Your task to perform on an android device: Do I have any events tomorrow? Image 0: 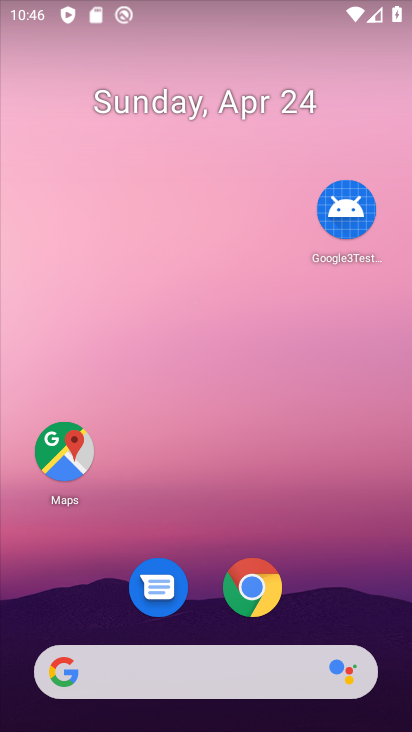
Step 0: drag from (366, 561) to (378, 88)
Your task to perform on an android device: Do I have any events tomorrow? Image 1: 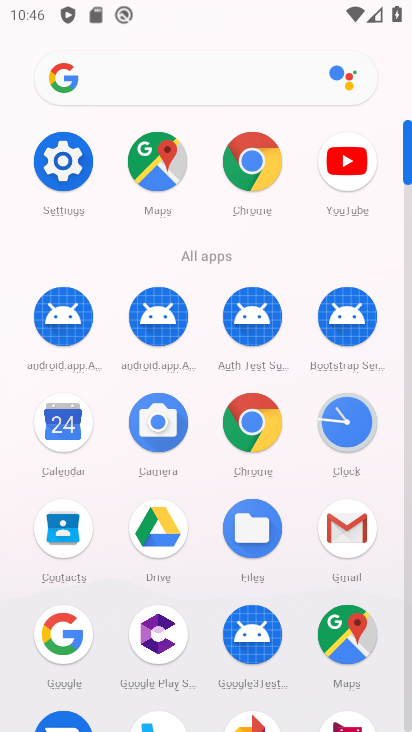
Step 1: drag from (377, 454) to (382, 173)
Your task to perform on an android device: Do I have any events tomorrow? Image 2: 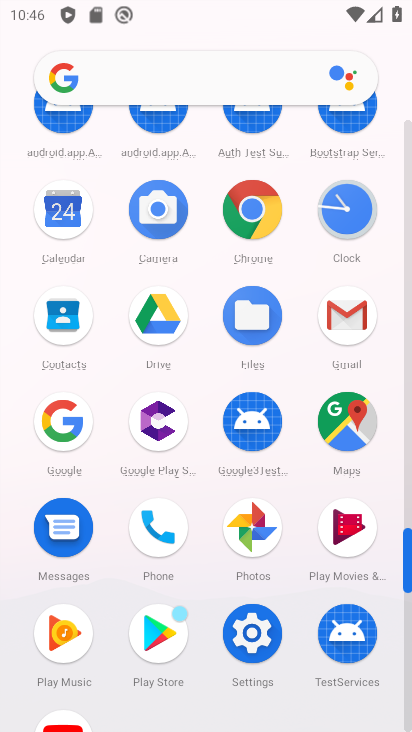
Step 2: click (62, 222)
Your task to perform on an android device: Do I have any events tomorrow? Image 3: 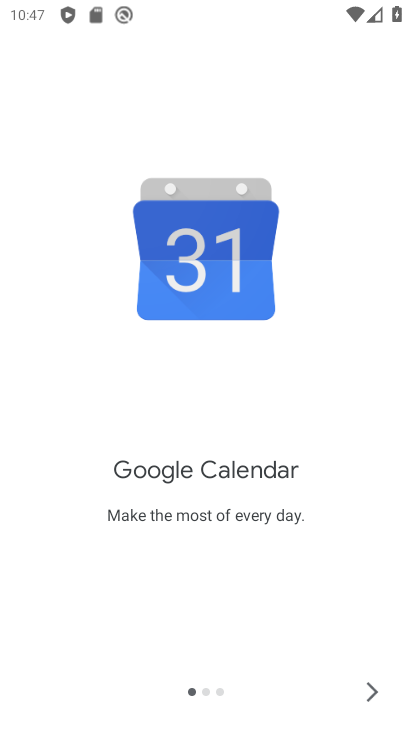
Step 3: click (372, 696)
Your task to perform on an android device: Do I have any events tomorrow? Image 4: 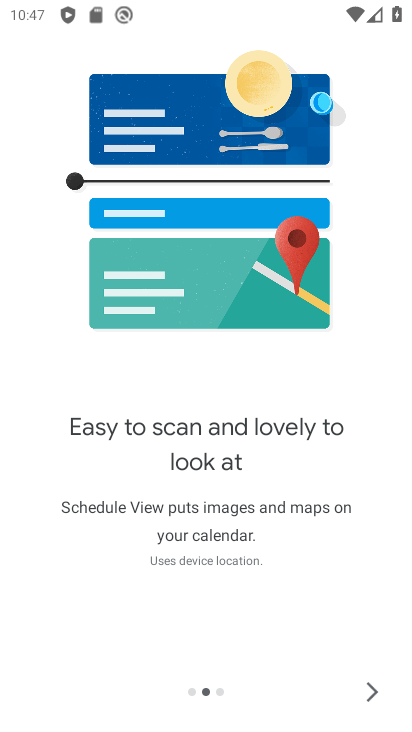
Step 4: click (372, 695)
Your task to perform on an android device: Do I have any events tomorrow? Image 5: 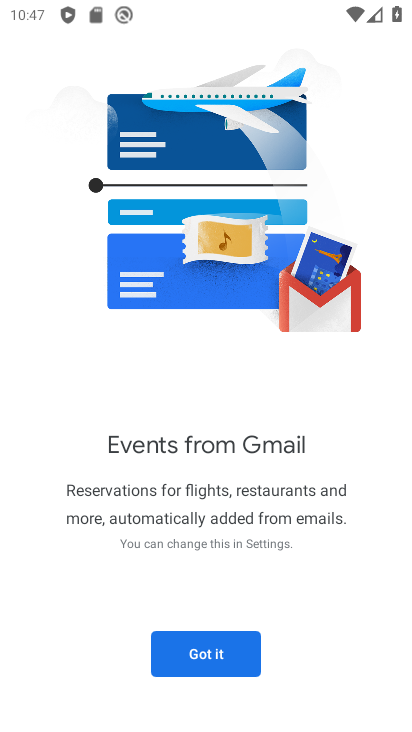
Step 5: click (236, 653)
Your task to perform on an android device: Do I have any events tomorrow? Image 6: 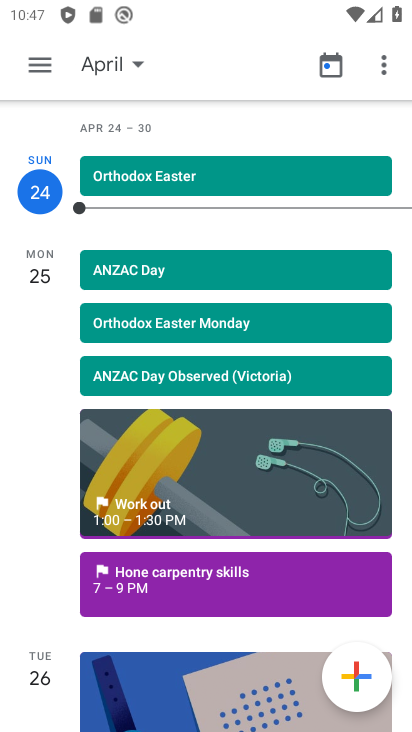
Step 6: task complete